Your task to perform on an android device: delete the emails in spam in the gmail app Image 0: 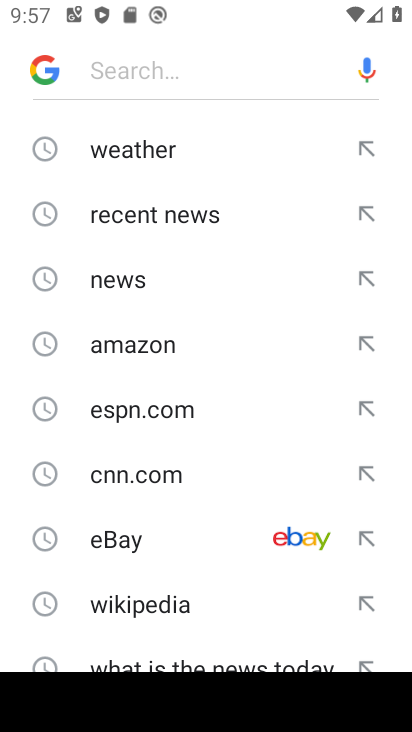
Step 0: press home button
Your task to perform on an android device: delete the emails in spam in the gmail app Image 1: 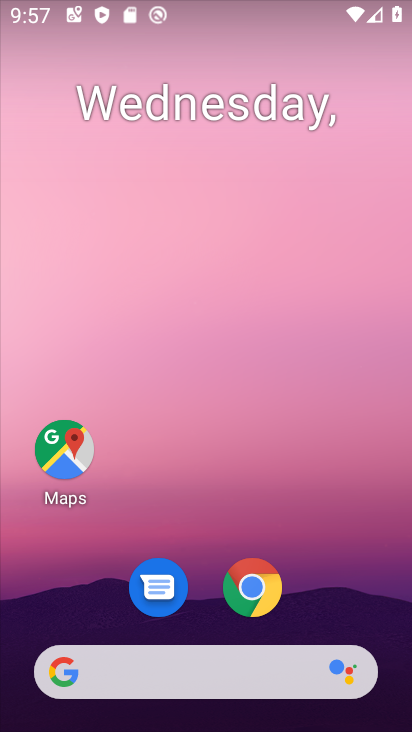
Step 1: drag from (320, 615) to (267, 352)
Your task to perform on an android device: delete the emails in spam in the gmail app Image 2: 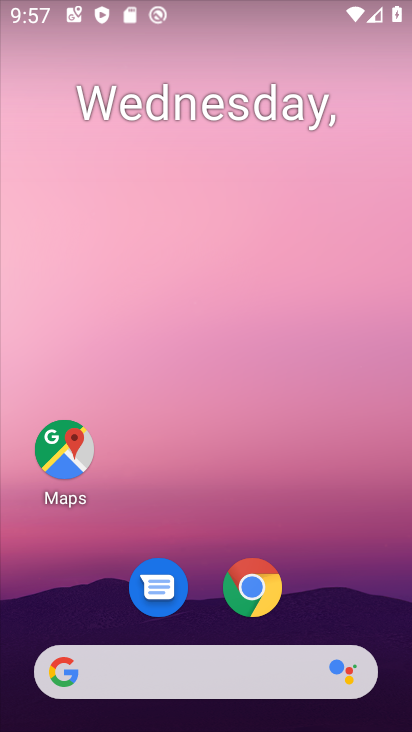
Step 2: drag from (343, 561) to (291, 232)
Your task to perform on an android device: delete the emails in spam in the gmail app Image 3: 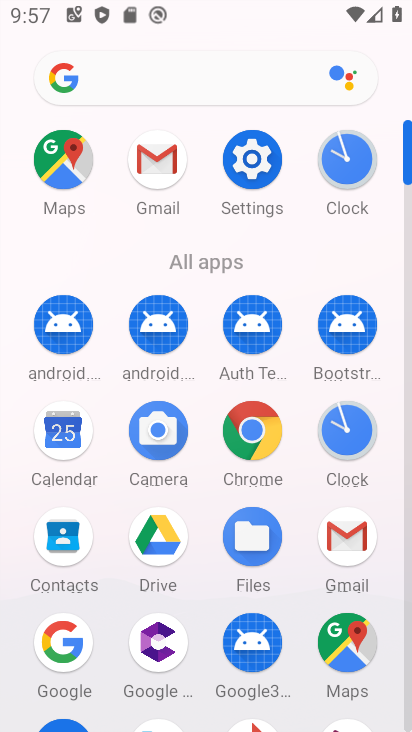
Step 3: click (165, 172)
Your task to perform on an android device: delete the emails in spam in the gmail app Image 4: 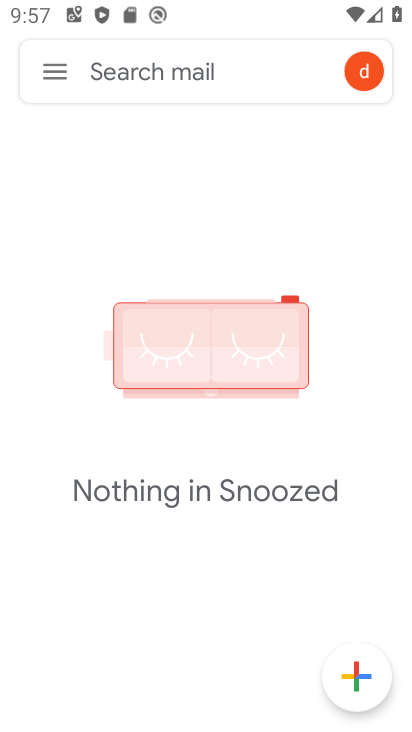
Step 4: click (55, 77)
Your task to perform on an android device: delete the emails in spam in the gmail app Image 5: 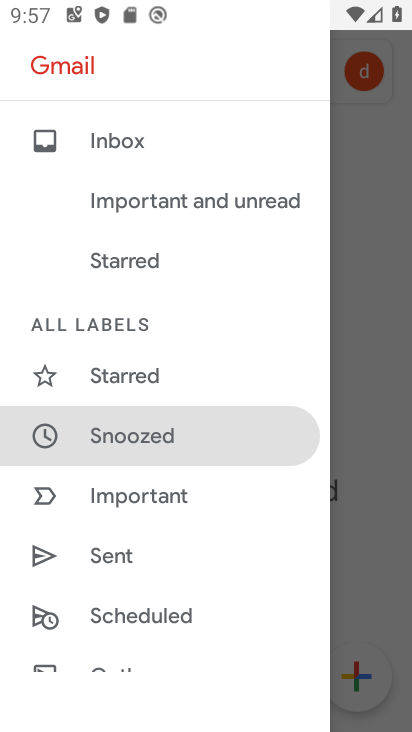
Step 5: drag from (275, 619) to (223, 186)
Your task to perform on an android device: delete the emails in spam in the gmail app Image 6: 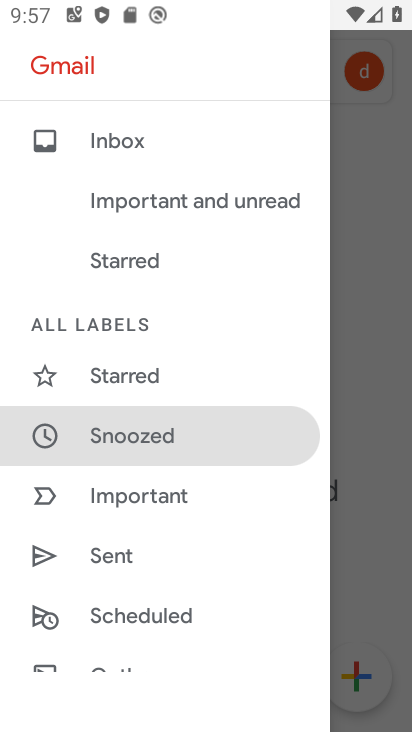
Step 6: drag from (204, 347) to (163, 25)
Your task to perform on an android device: delete the emails in spam in the gmail app Image 7: 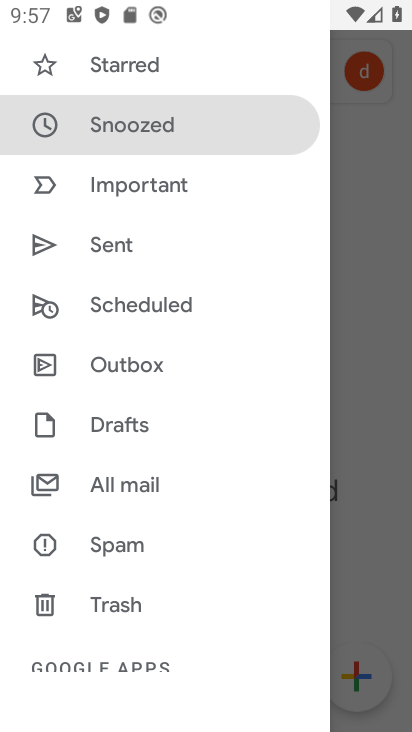
Step 7: click (103, 548)
Your task to perform on an android device: delete the emails in spam in the gmail app Image 8: 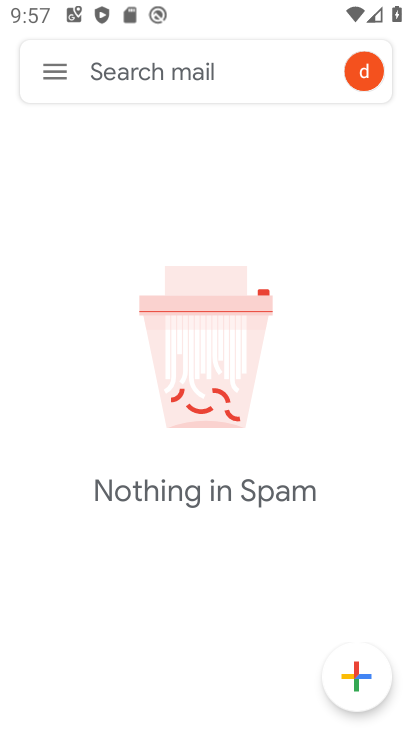
Step 8: task complete